Your task to perform on an android device: read, delete, or share a saved page in the chrome app Image 0: 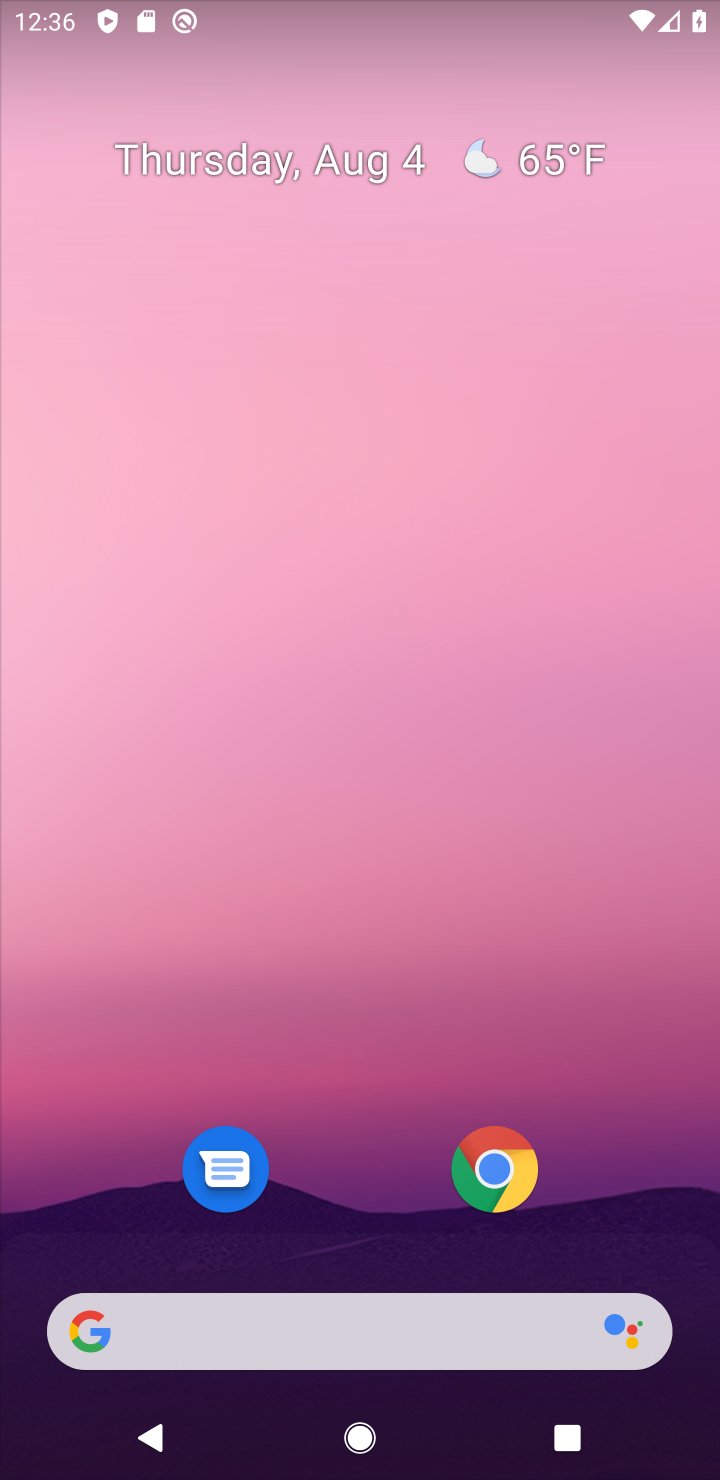
Step 0: click (497, 1185)
Your task to perform on an android device: read, delete, or share a saved page in the chrome app Image 1: 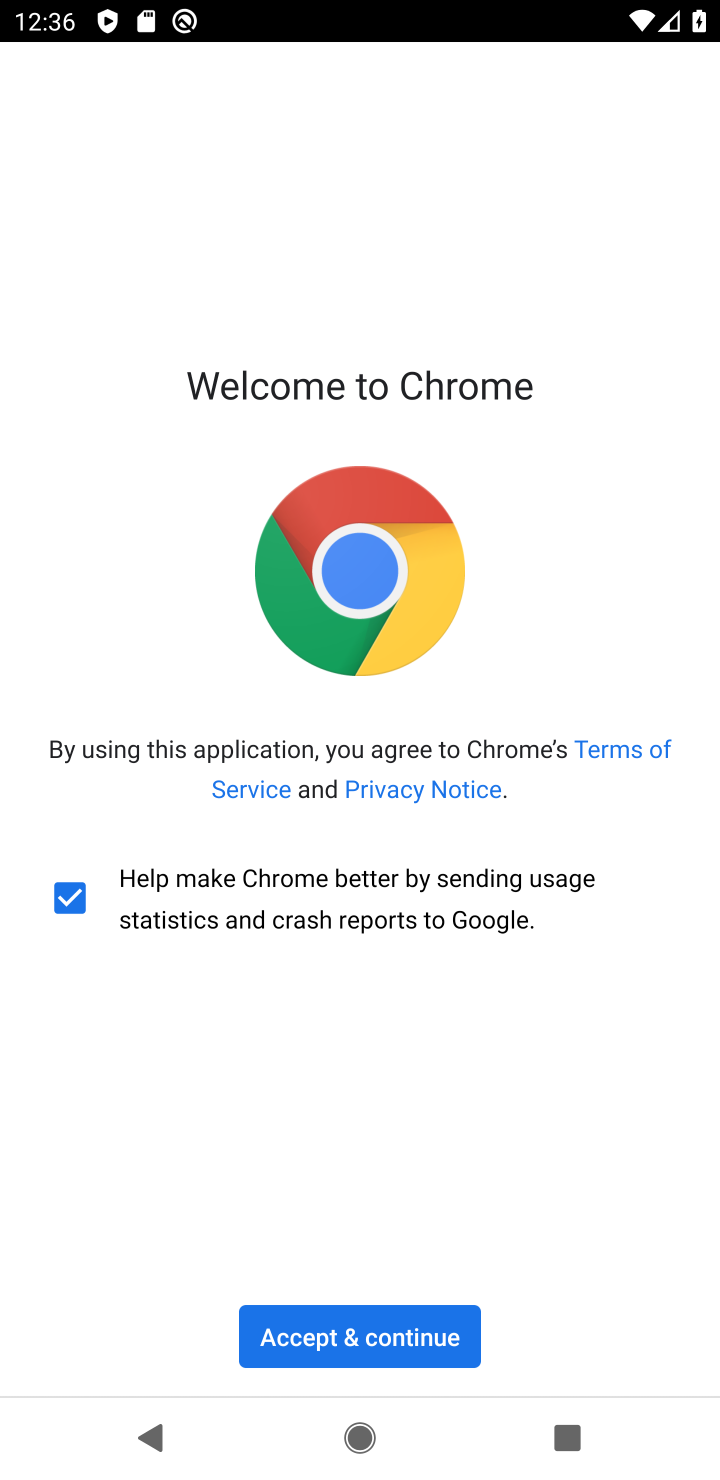
Step 1: click (360, 1340)
Your task to perform on an android device: read, delete, or share a saved page in the chrome app Image 2: 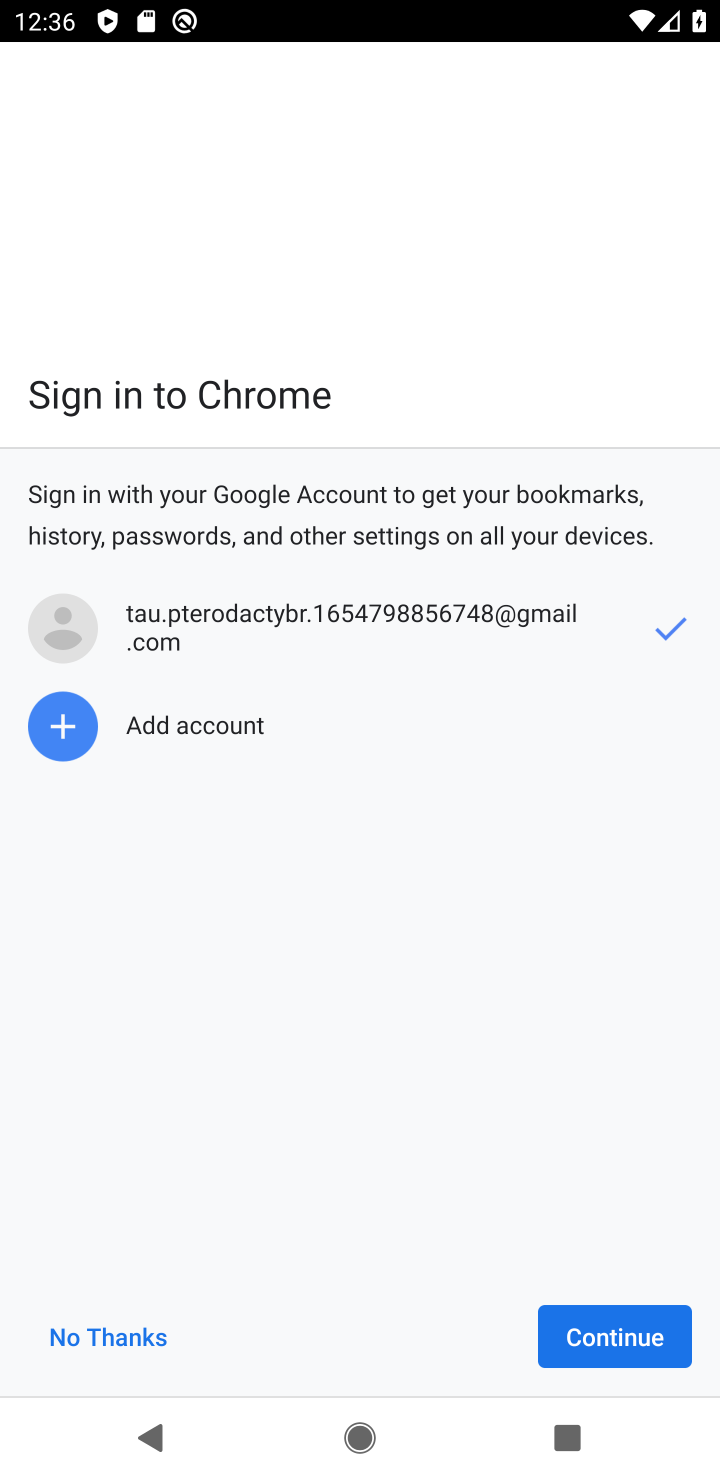
Step 2: click (604, 1331)
Your task to perform on an android device: read, delete, or share a saved page in the chrome app Image 3: 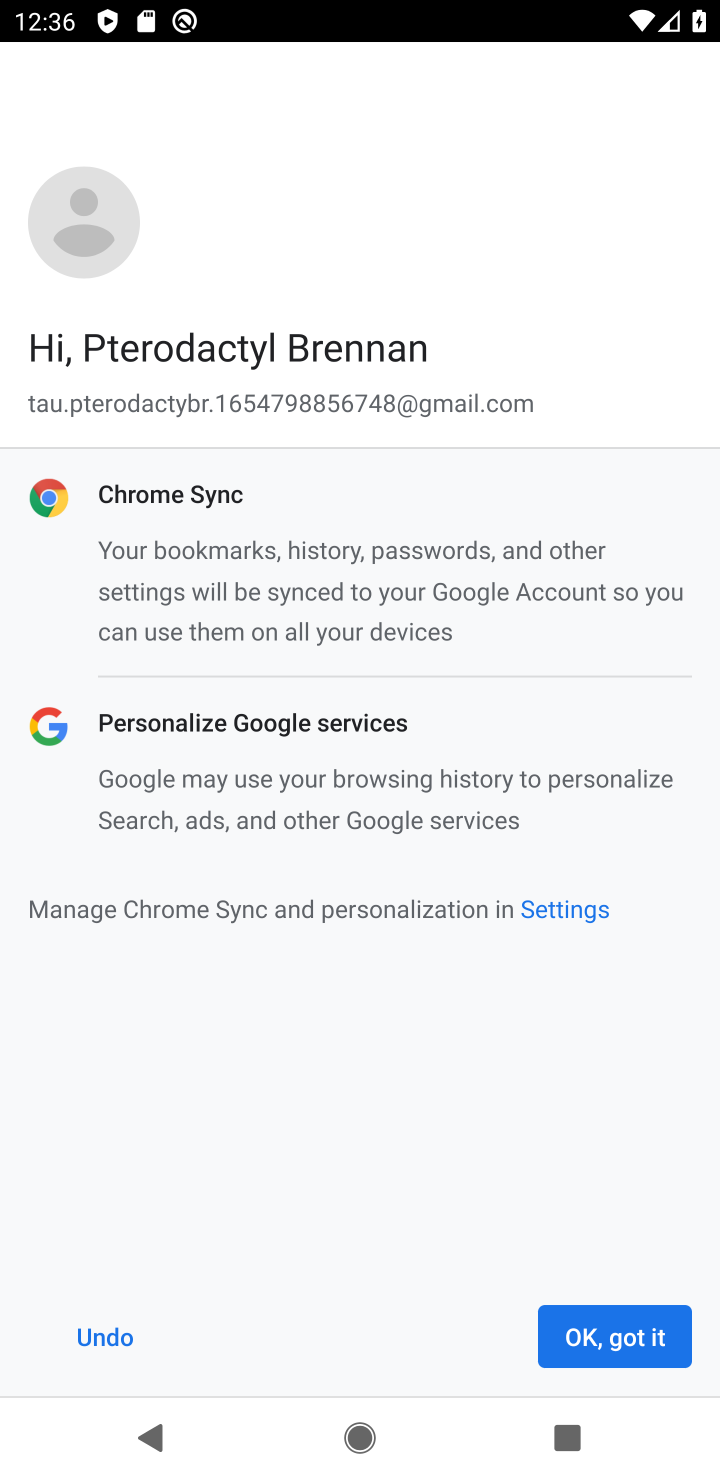
Step 3: click (604, 1331)
Your task to perform on an android device: read, delete, or share a saved page in the chrome app Image 4: 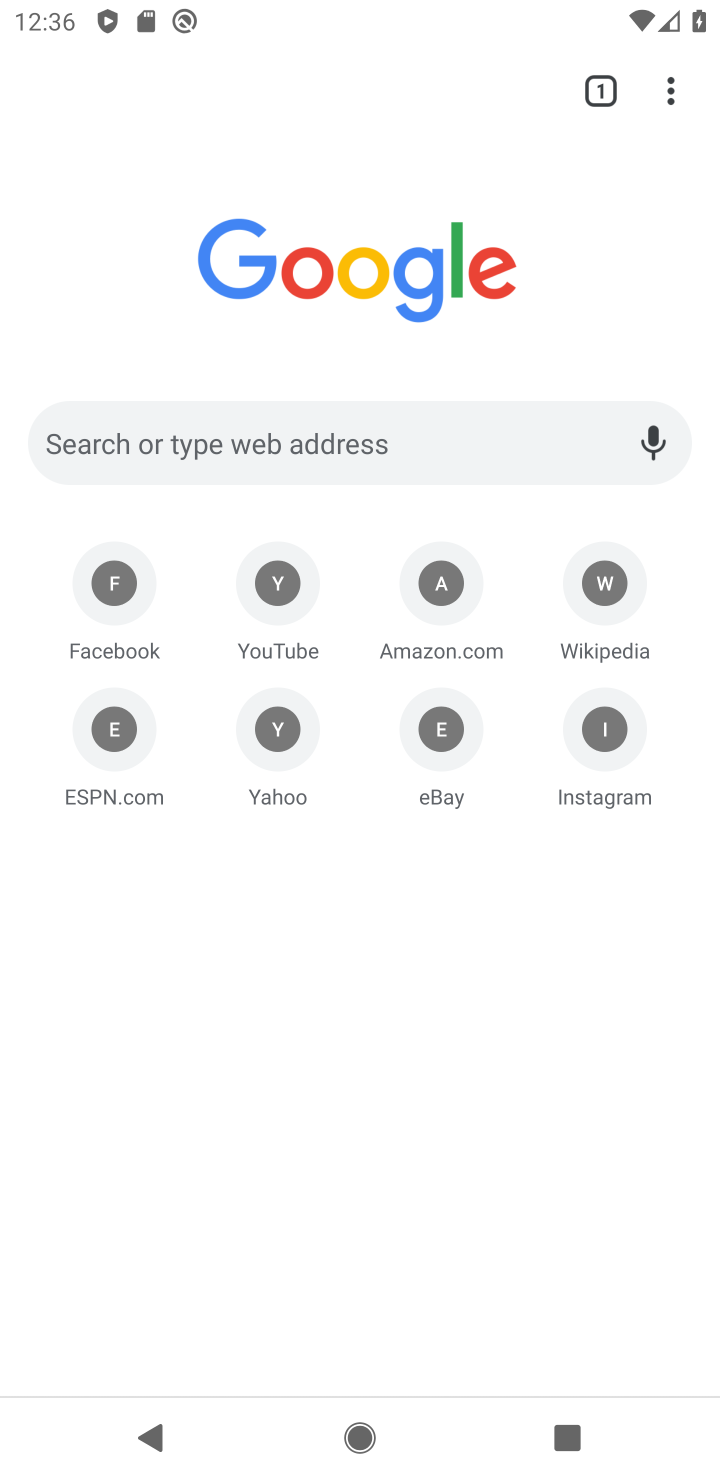
Step 4: click (673, 93)
Your task to perform on an android device: read, delete, or share a saved page in the chrome app Image 5: 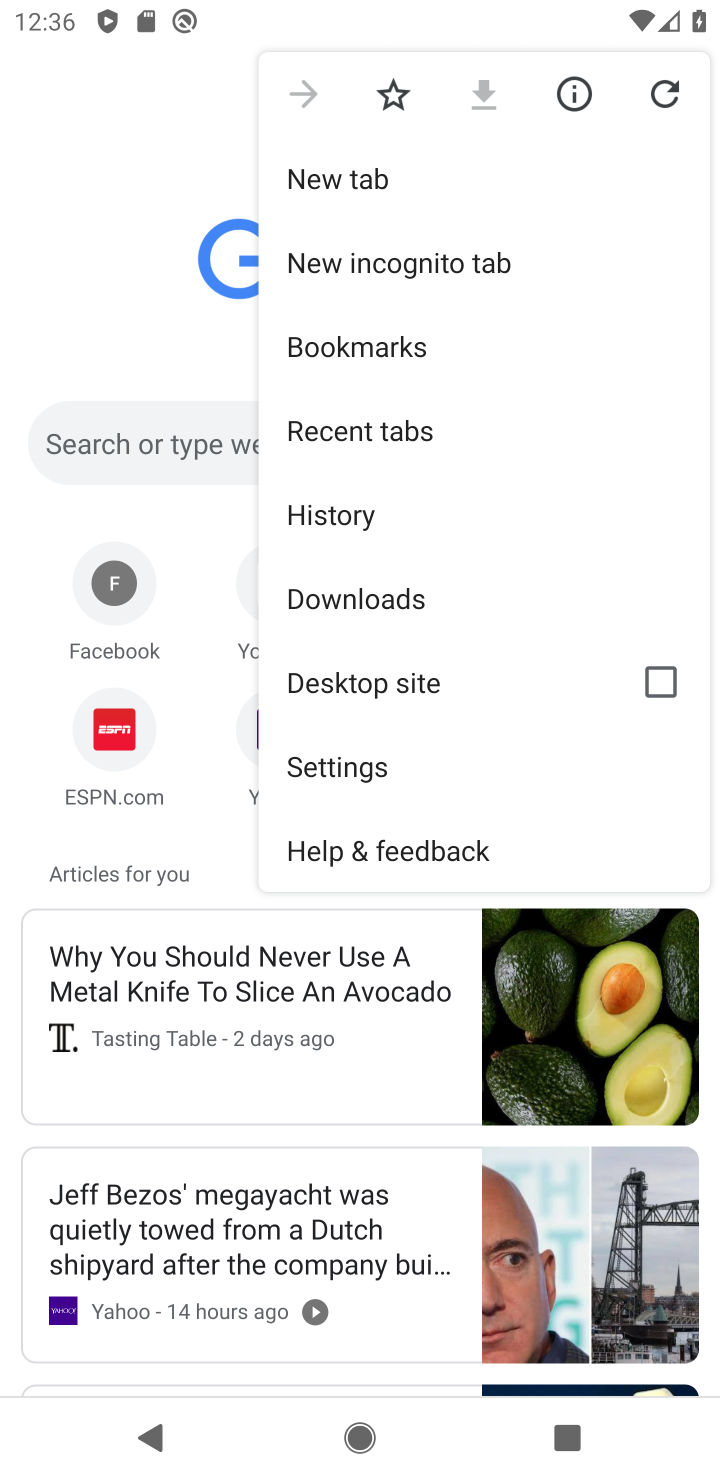
Step 5: click (401, 605)
Your task to perform on an android device: read, delete, or share a saved page in the chrome app Image 6: 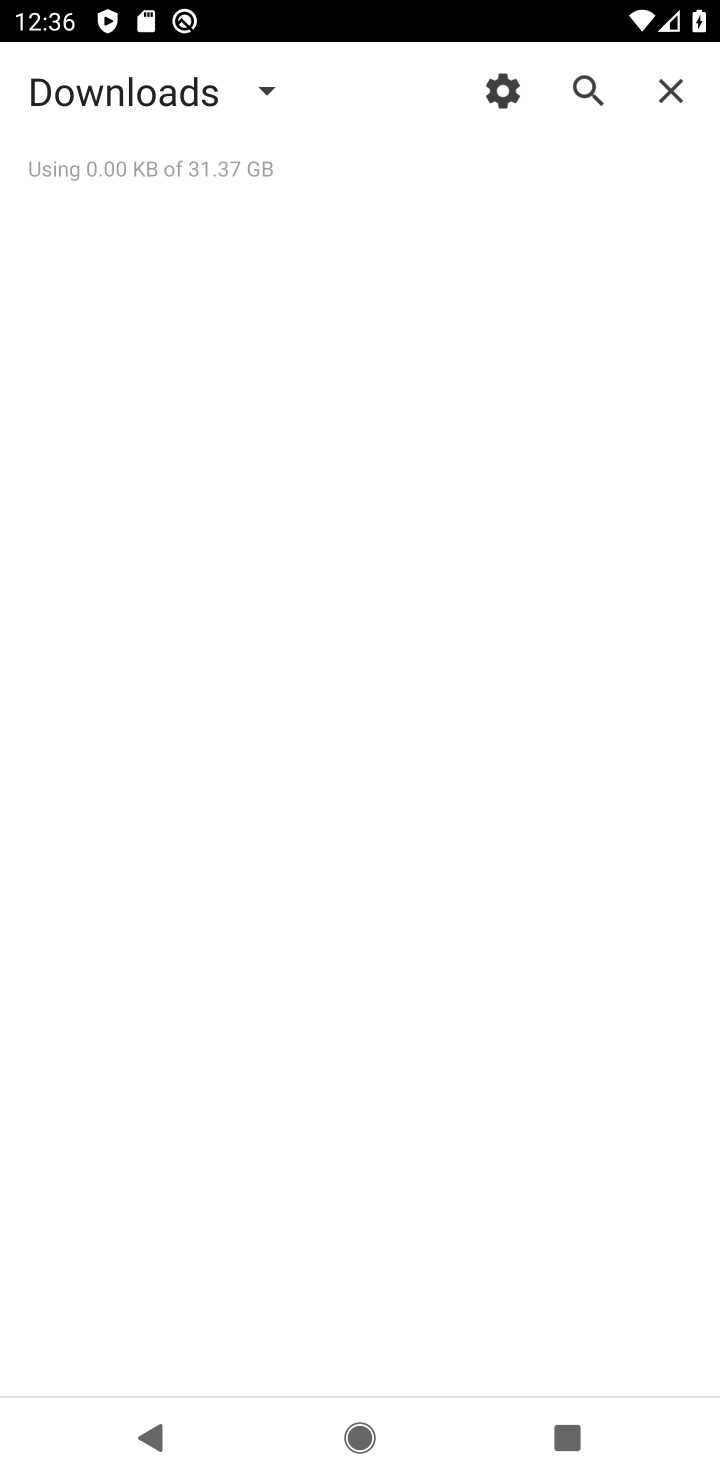
Step 6: task complete